Your task to perform on an android device: remove spam from my inbox in the gmail app Image 0: 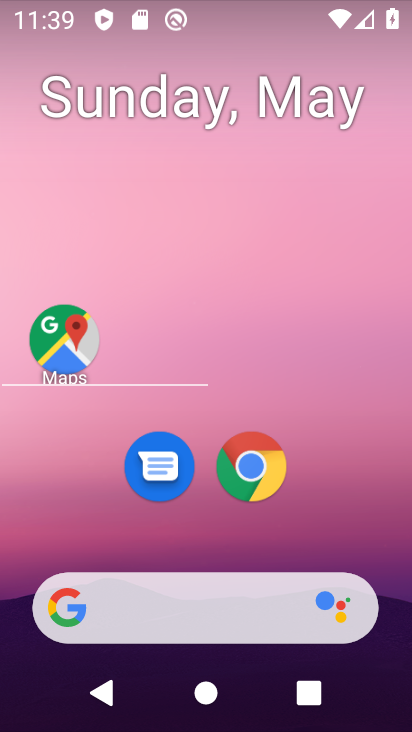
Step 0: press home button
Your task to perform on an android device: remove spam from my inbox in the gmail app Image 1: 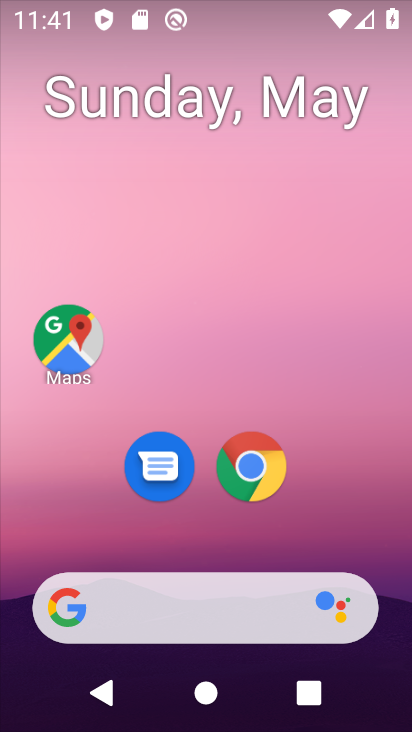
Step 1: drag from (358, 336) to (342, 129)
Your task to perform on an android device: remove spam from my inbox in the gmail app Image 2: 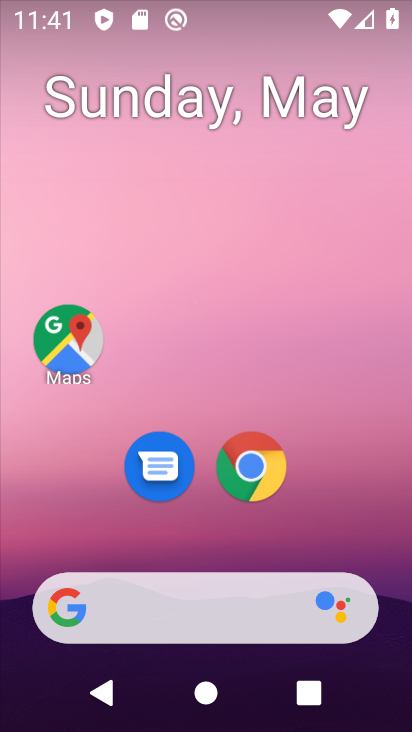
Step 2: drag from (352, 518) to (350, 3)
Your task to perform on an android device: remove spam from my inbox in the gmail app Image 3: 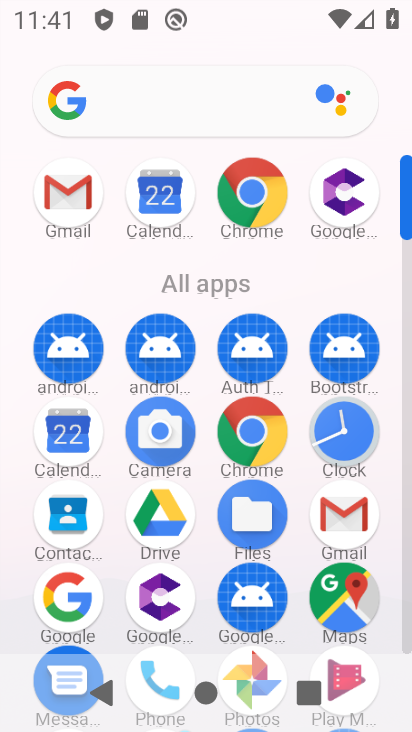
Step 3: click (361, 527)
Your task to perform on an android device: remove spam from my inbox in the gmail app Image 4: 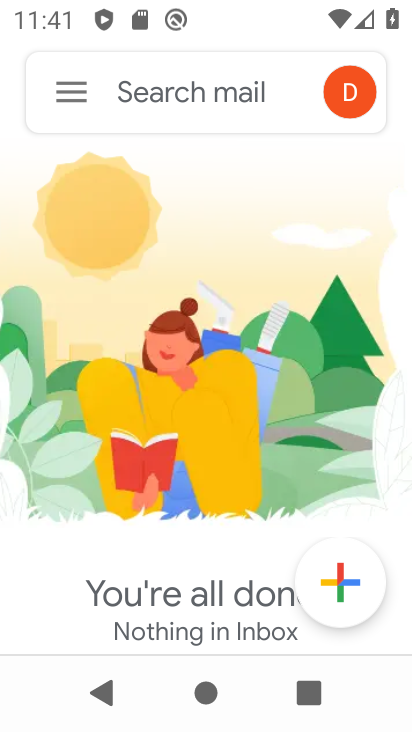
Step 4: task complete